Your task to perform on an android device: Open calendar and show me the second week of next month Image 0: 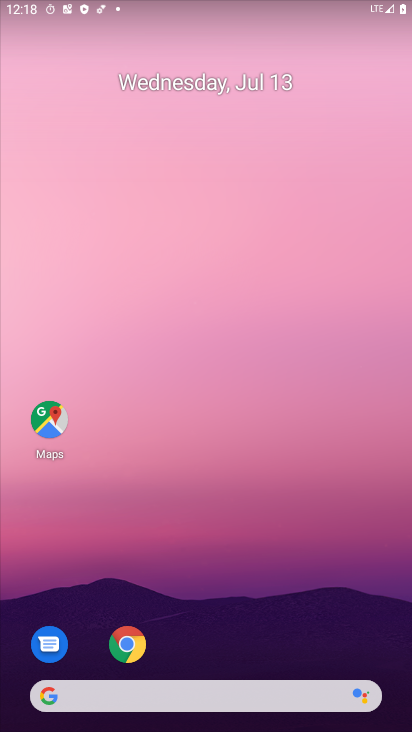
Step 0: drag from (234, 643) to (240, 145)
Your task to perform on an android device: Open calendar and show me the second week of next month Image 1: 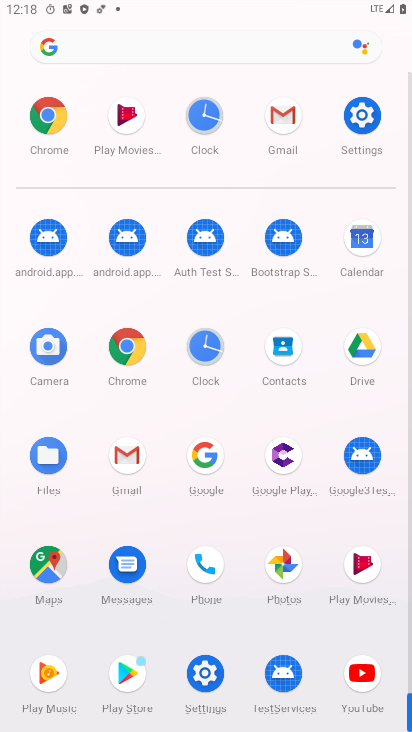
Step 1: click (360, 237)
Your task to perform on an android device: Open calendar and show me the second week of next month Image 2: 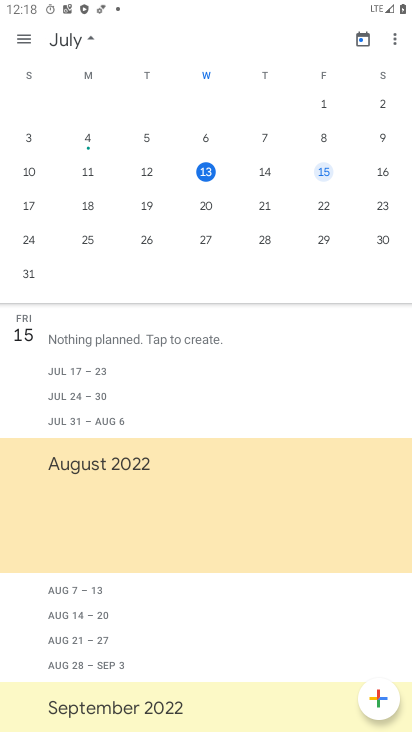
Step 2: drag from (362, 287) to (12, 245)
Your task to perform on an android device: Open calendar and show me the second week of next month Image 3: 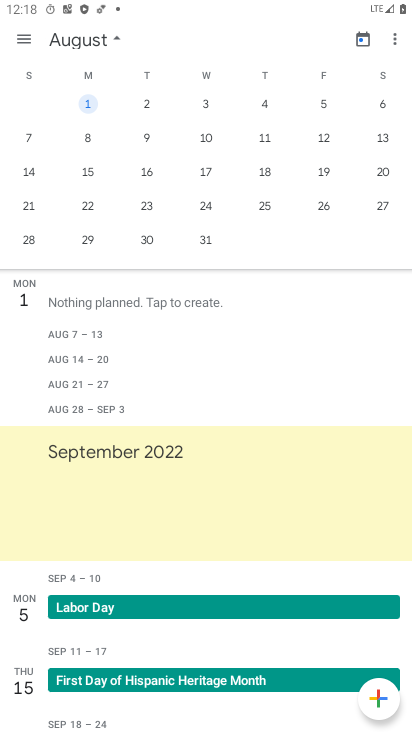
Step 3: click (97, 171)
Your task to perform on an android device: Open calendar and show me the second week of next month Image 4: 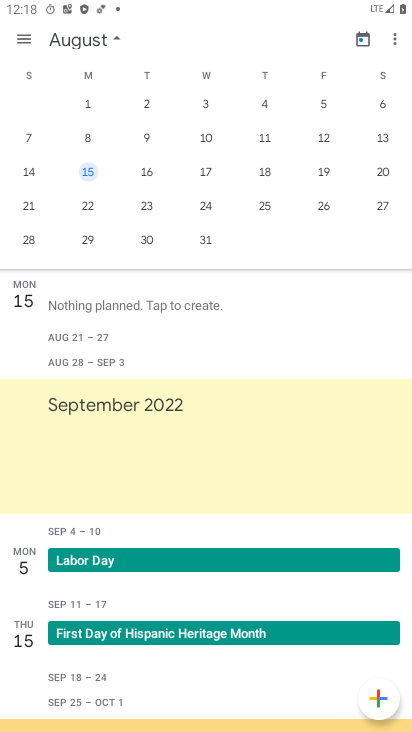
Step 4: task complete